Your task to perform on an android device: change the clock display to digital Image 0: 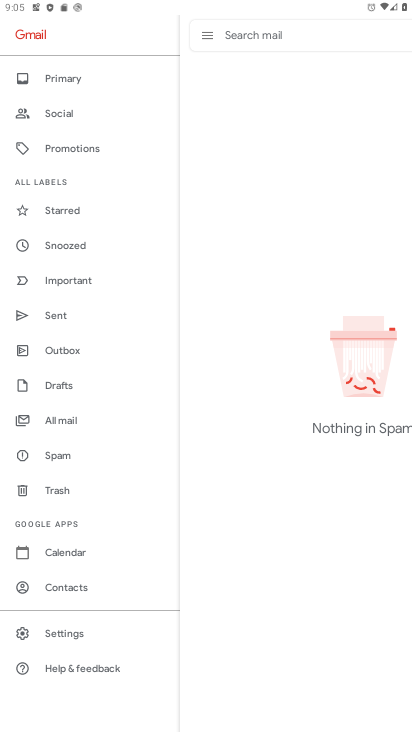
Step 0: press home button
Your task to perform on an android device: change the clock display to digital Image 1: 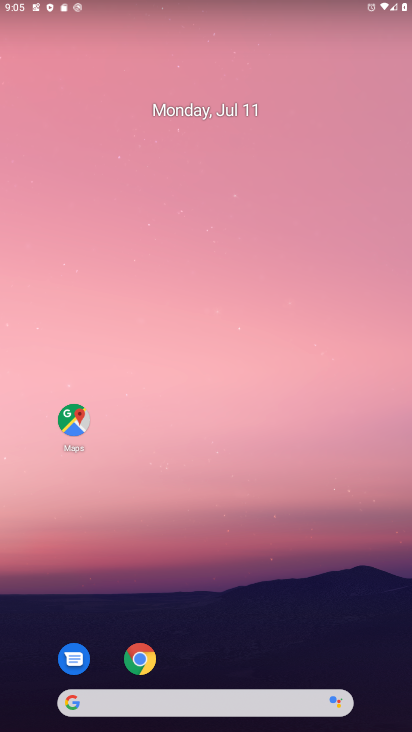
Step 1: drag from (258, 596) to (249, 92)
Your task to perform on an android device: change the clock display to digital Image 2: 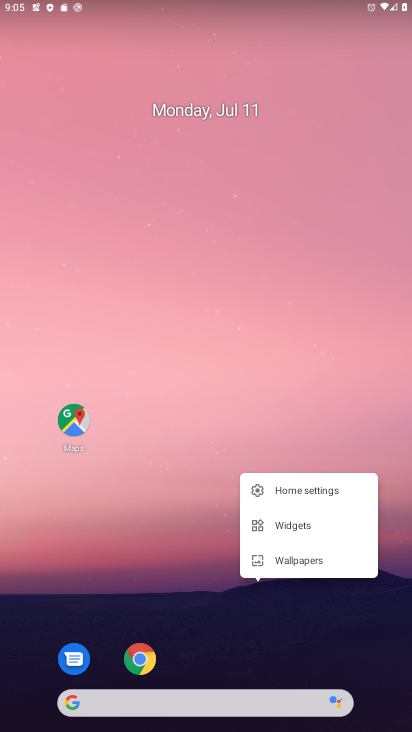
Step 2: click (119, 540)
Your task to perform on an android device: change the clock display to digital Image 3: 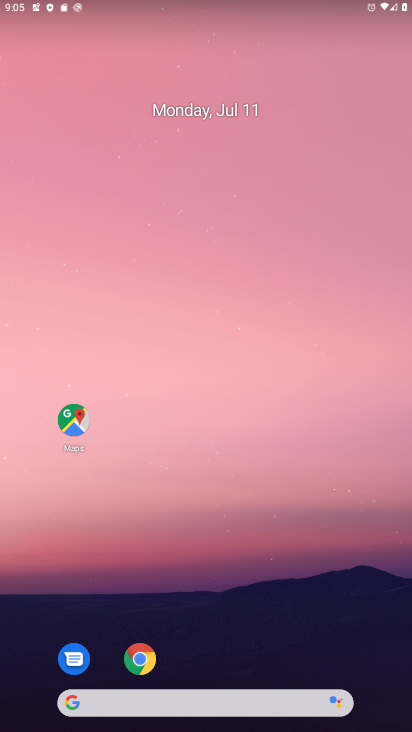
Step 3: drag from (173, 575) to (230, 134)
Your task to perform on an android device: change the clock display to digital Image 4: 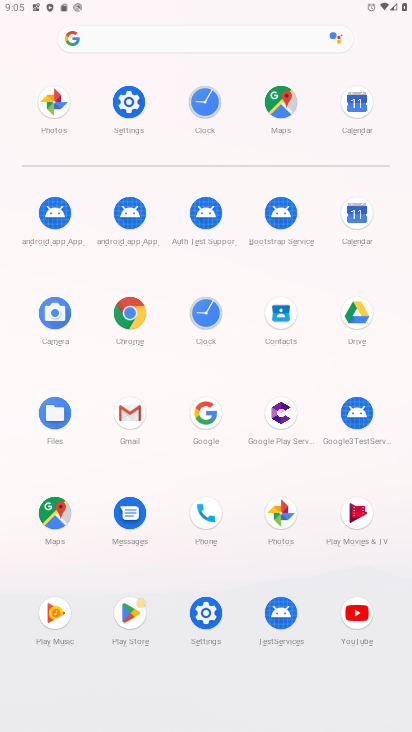
Step 4: click (206, 314)
Your task to perform on an android device: change the clock display to digital Image 5: 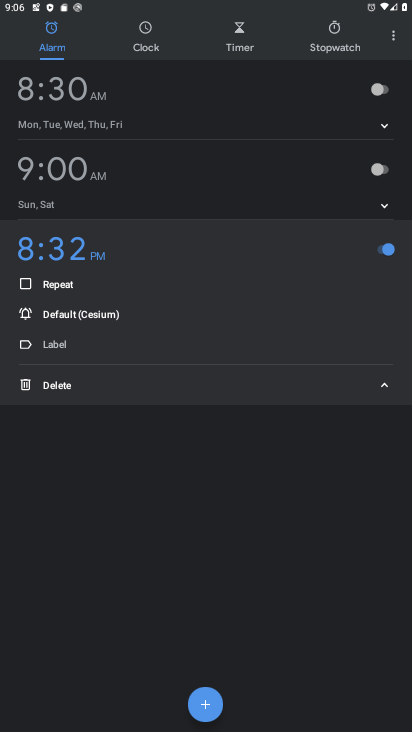
Step 5: click (393, 43)
Your task to perform on an android device: change the clock display to digital Image 6: 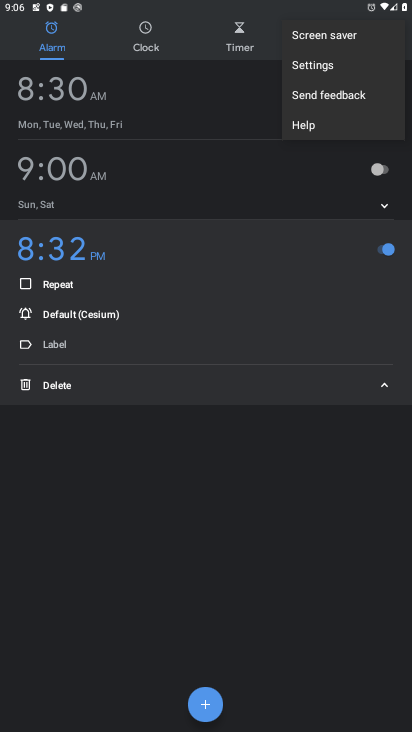
Step 6: click (326, 63)
Your task to perform on an android device: change the clock display to digital Image 7: 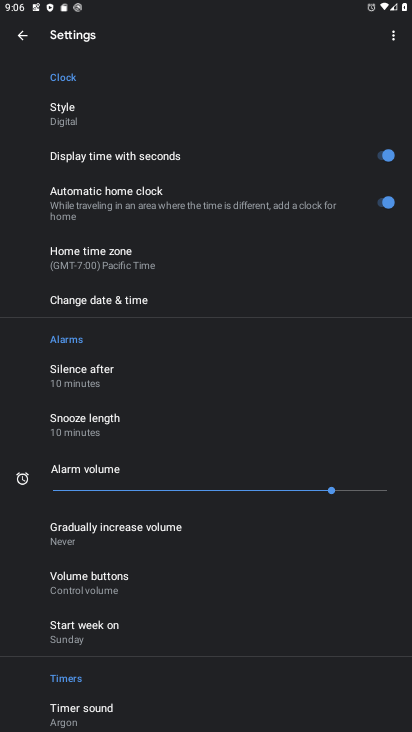
Step 7: click (44, 119)
Your task to perform on an android device: change the clock display to digital Image 8: 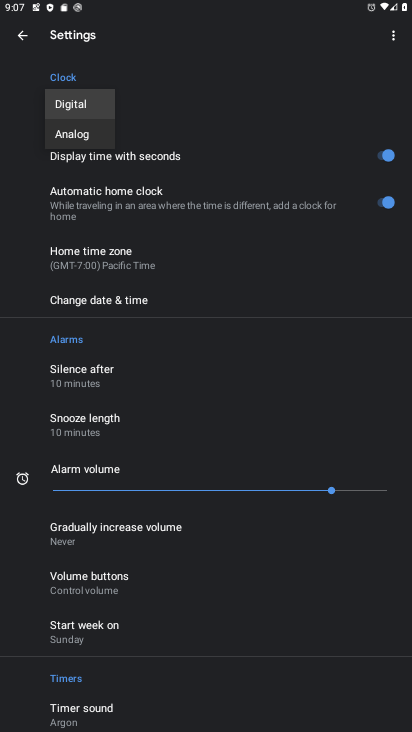
Step 8: task complete